Your task to perform on an android device: Search for Italian restaurants on Maps Image 0: 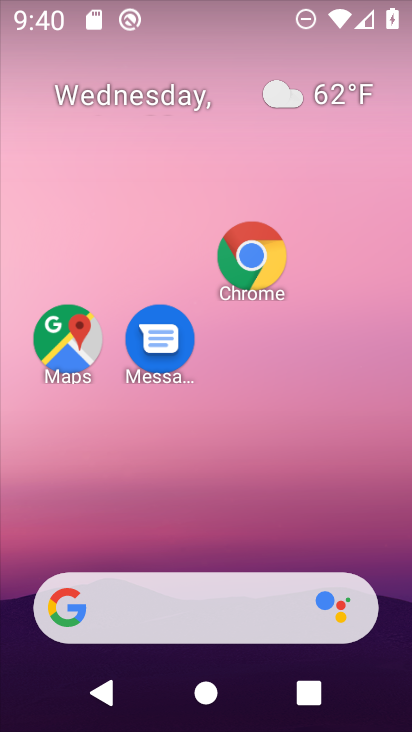
Step 0: click (69, 333)
Your task to perform on an android device: Search for Italian restaurants on Maps Image 1: 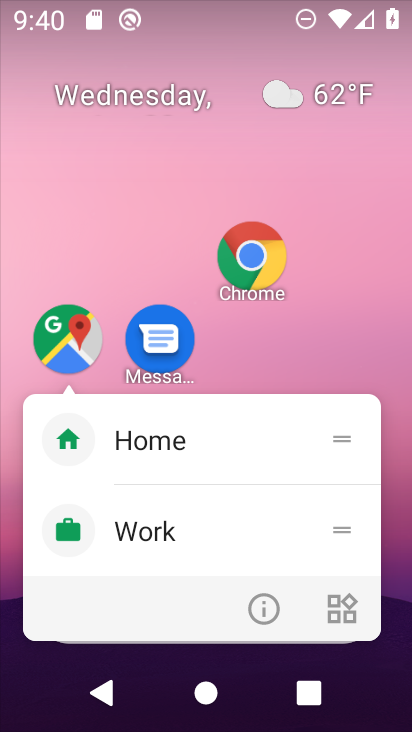
Step 1: click (308, 347)
Your task to perform on an android device: Search for Italian restaurants on Maps Image 2: 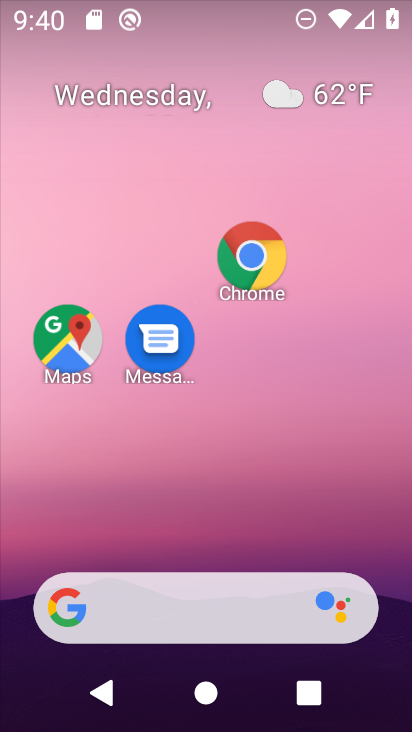
Step 2: click (67, 344)
Your task to perform on an android device: Search for Italian restaurants on Maps Image 3: 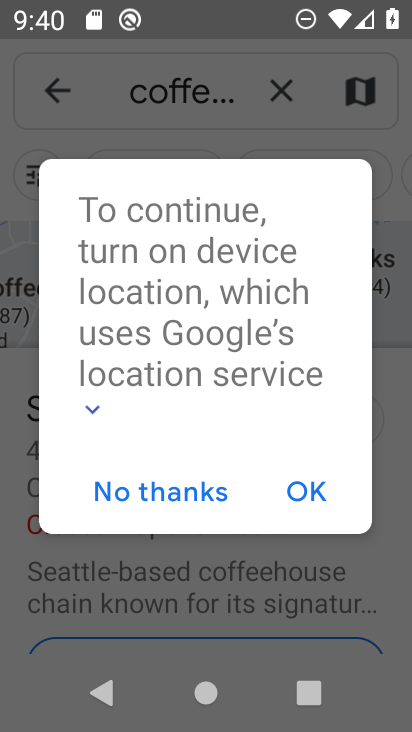
Step 3: click (300, 481)
Your task to perform on an android device: Search for Italian restaurants on Maps Image 4: 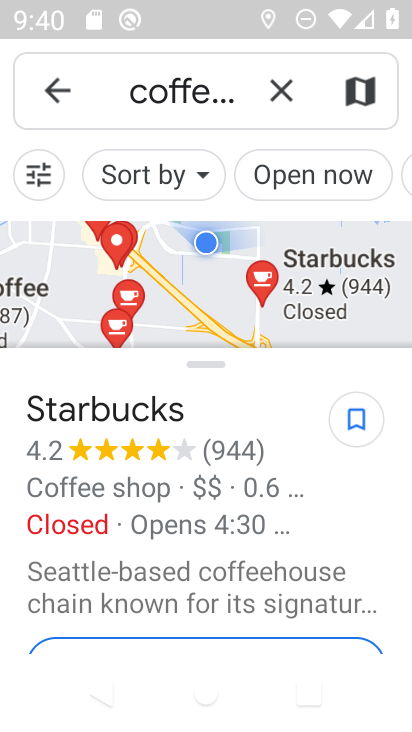
Step 4: click (277, 88)
Your task to perform on an android device: Search for Italian restaurants on Maps Image 5: 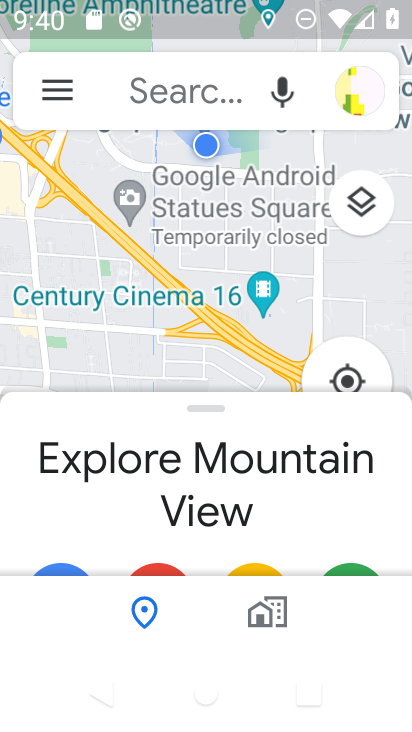
Step 5: click (169, 81)
Your task to perform on an android device: Search for Italian restaurants on Maps Image 6: 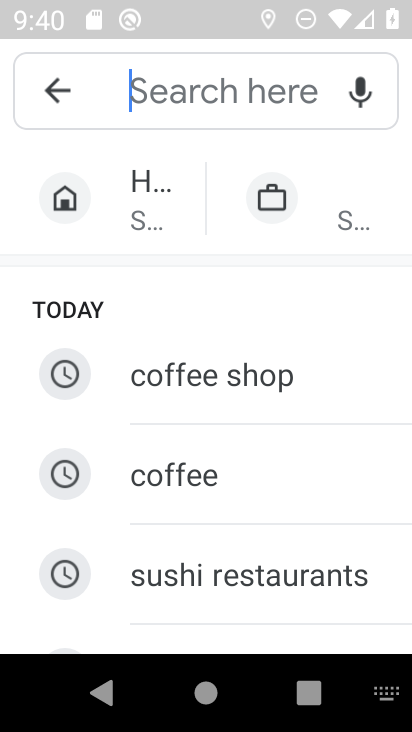
Step 6: type "Italian restaurent"
Your task to perform on an android device: Search for Italian restaurants on Maps Image 7: 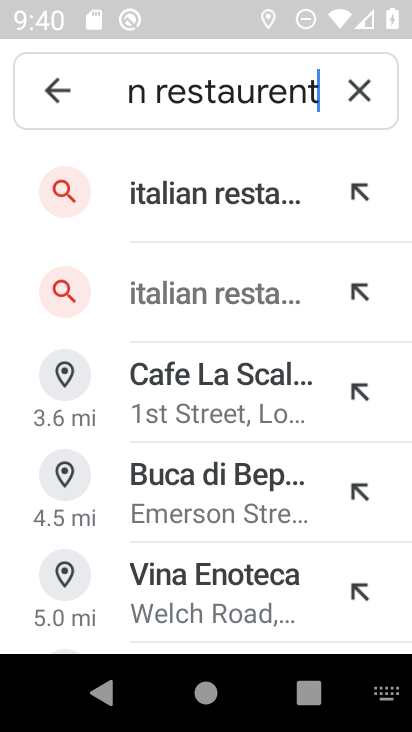
Step 7: click (227, 200)
Your task to perform on an android device: Search for Italian restaurants on Maps Image 8: 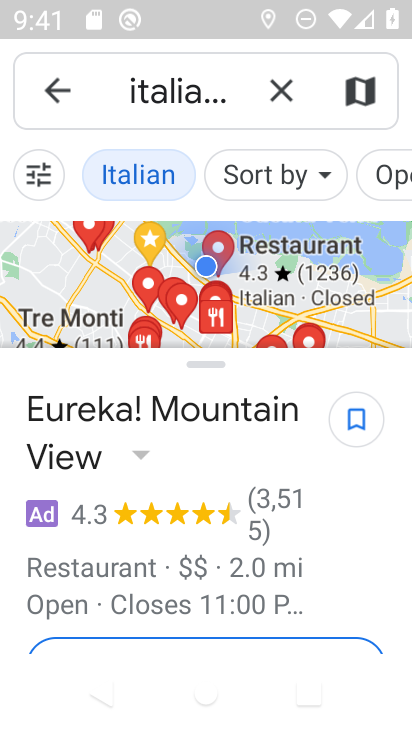
Step 8: task complete